Your task to perform on an android device: change keyboard looks Image 0: 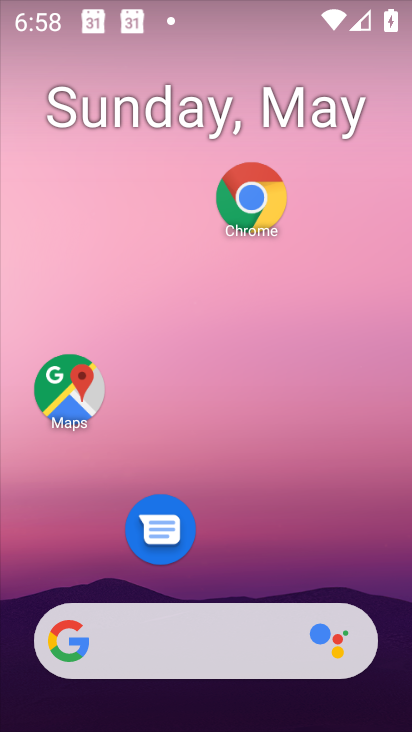
Step 0: drag from (247, 578) to (319, 264)
Your task to perform on an android device: change keyboard looks Image 1: 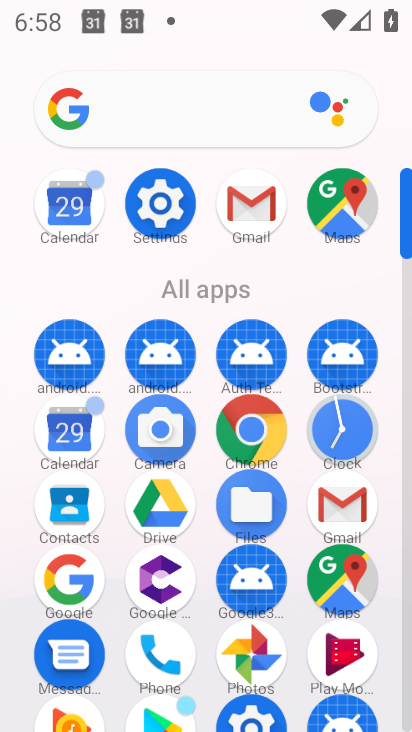
Step 1: click (174, 197)
Your task to perform on an android device: change keyboard looks Image 2: 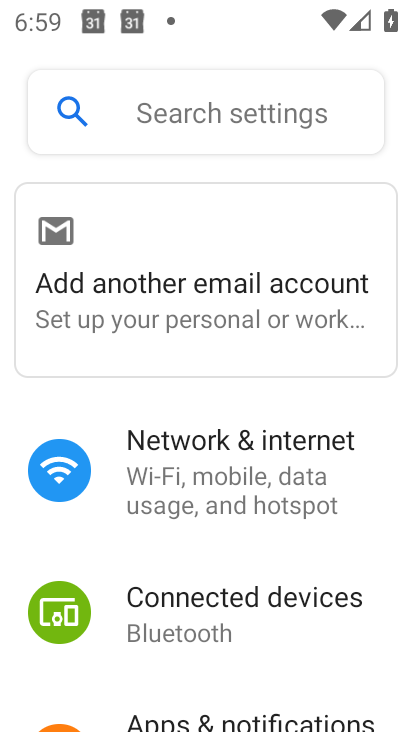
Step 2: press home button
Your task to perform on an android device: change keyboard looks Image 3: 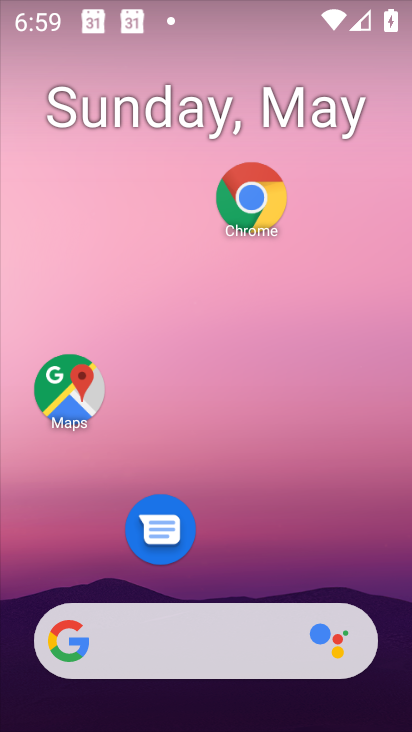
Step 3: drag from (273, 604) to (251, 262)
Your task to perform on an android device: change keyboard looks Image 4: 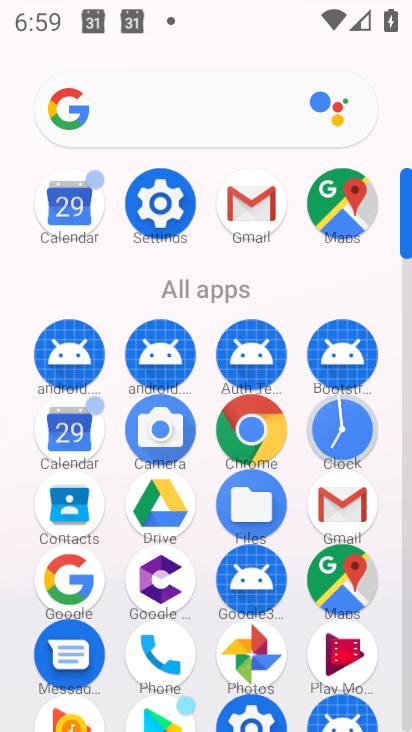
Step 4: click (175, 190)
Your task to perform on an android device: change keyboard looks Image 5: 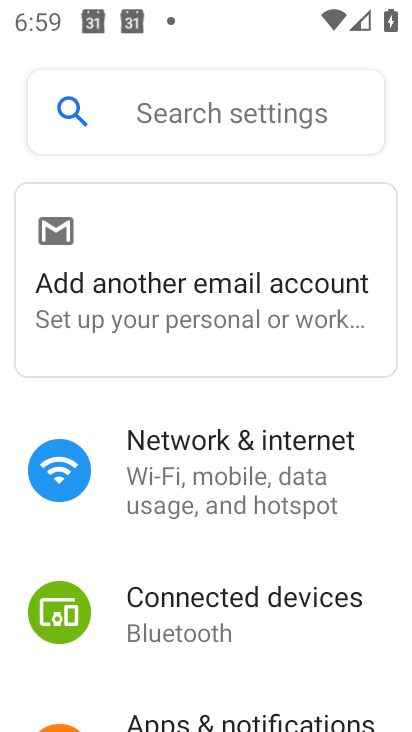
Step 5: drag from (248, 628) to (258, 258)
Your task to perform on an android device: change keyboard looks Image 6: 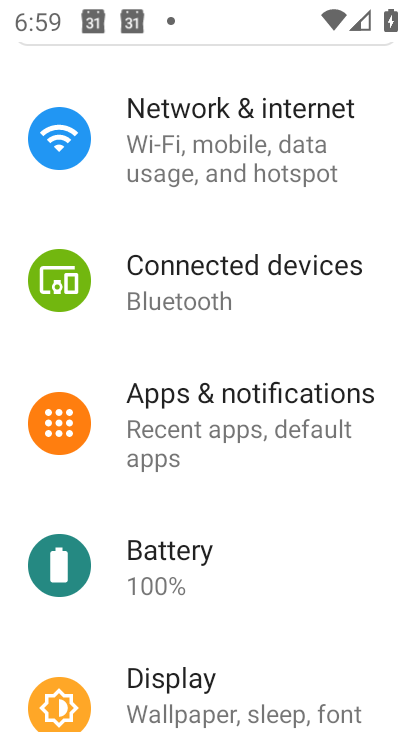
Step 6: drag from (228, 609) to (294, 218)
Your task to perform on an android device: change keyboard looks Image 7: 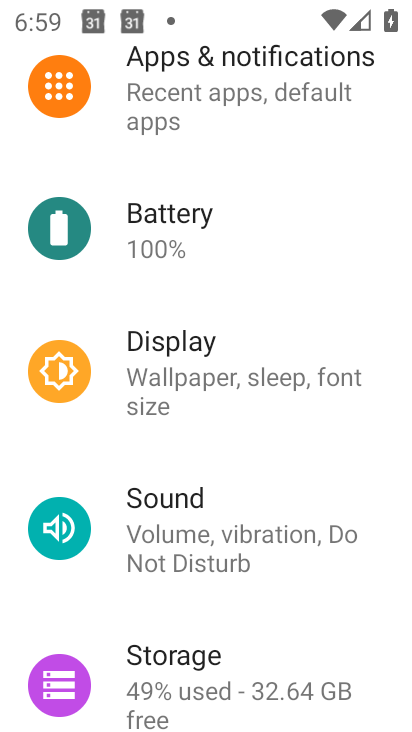
Step 7: drag from (145, 580) to (232, 102)
Your task to perform on an android device: change keyboard looks Image 8: 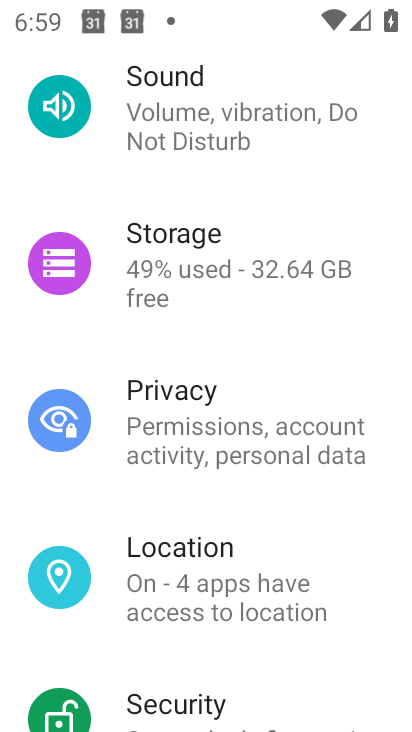
Step 8: drag from (146, 628) to (177, 256)
Your task to perform on an android device: change keyboard looks Image 9: 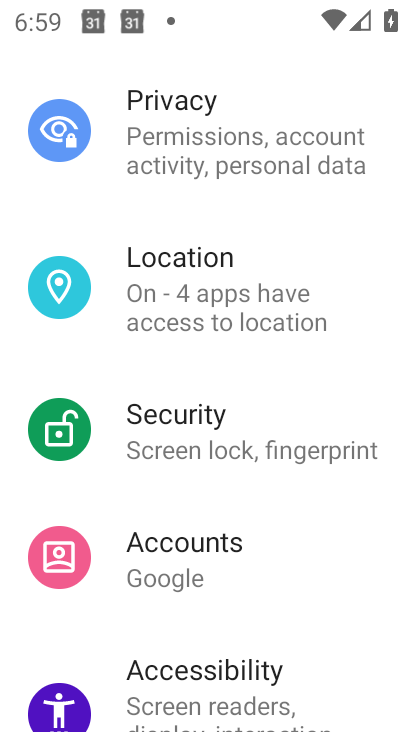
Step 9: drag from (251, 576) to (290, 256)
Your task to perform on an android device: change keyboard looks Image 10: 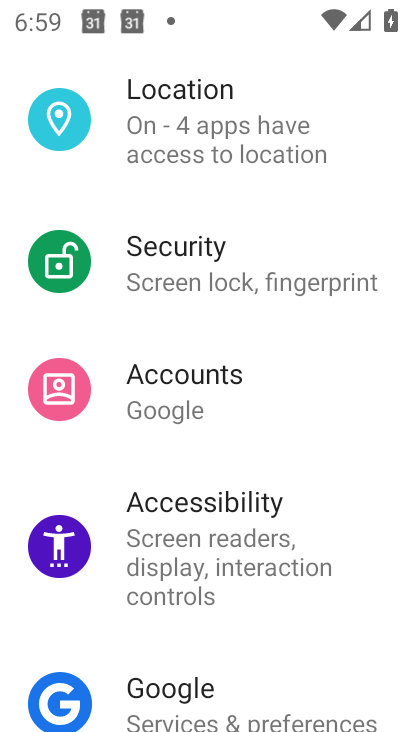
Step 10: drag from (161, 664) to (208, 235)
Your task to perform on an android device: change keyboard looks Image 11: 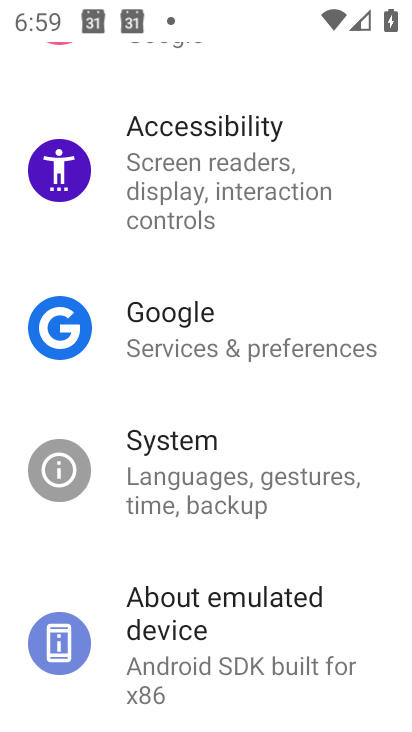
Step 11: click (211, 484)
Your task to perform on an android device: change keyboard looks Image 12: 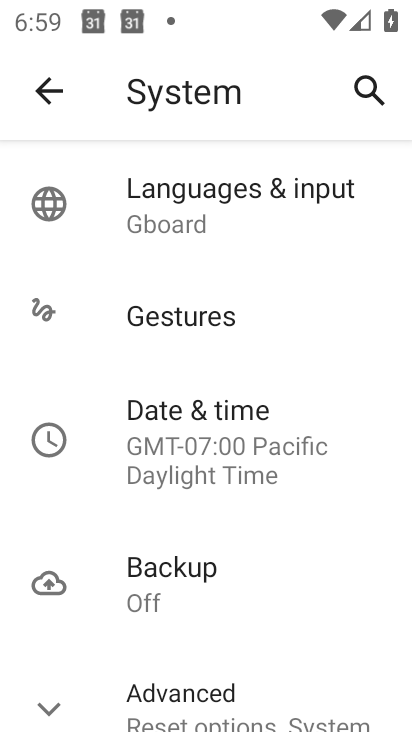
Step 12: click (218, 171)
Your task to perform on an android device: change keyboard looks Image 13: 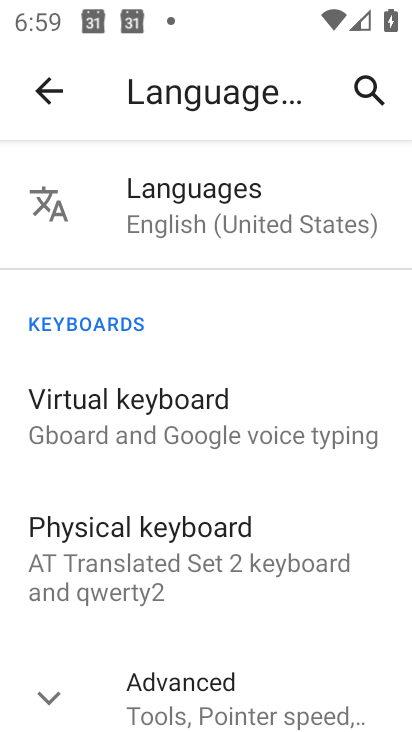
Step 13: click (101, 402)
Your task to perform on an android device: change keyboard looks Image 14: 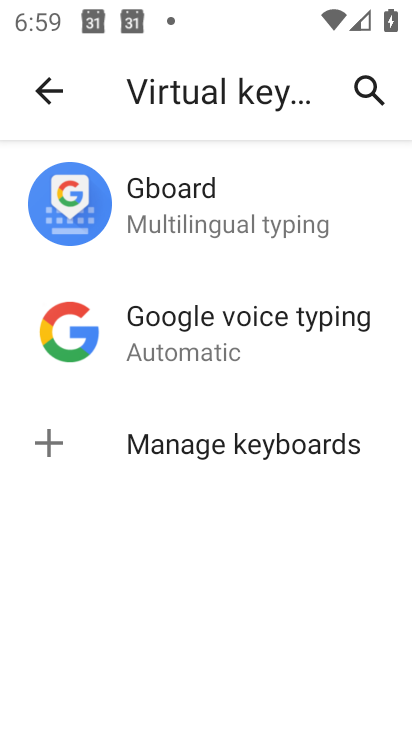
Step 14: task complete